Your task to perform on an android device: choose inbox layout in the gmail app Image 0: 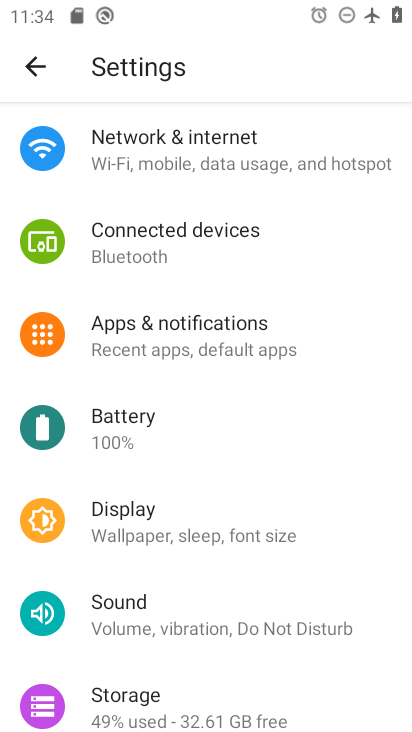
Step 0: press home button
Your task to perform on an android device: choose inbox layout in the gmail app Image 1: 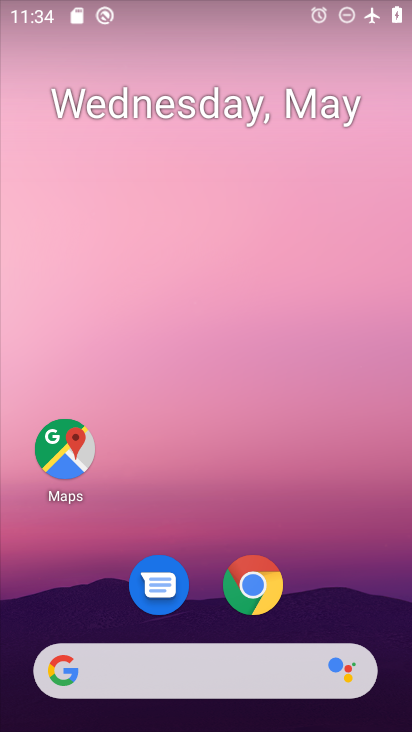
Step 1: drag from (260, 444) to (229, 72)
Your task to perform on an android device: choose inbox layout in the gmail app Image 2: 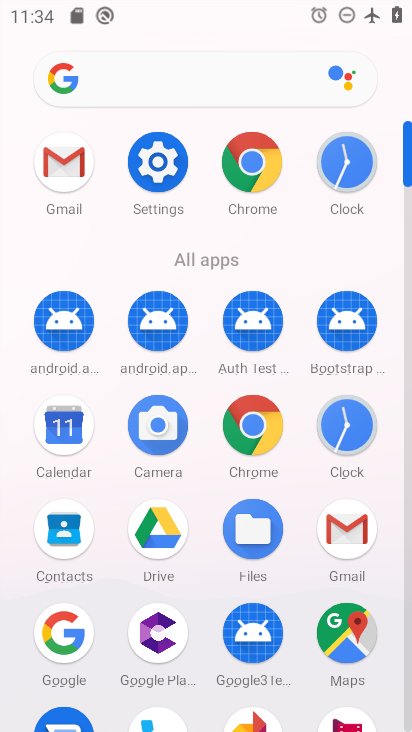
Step 2: click (66, 162)
Your task to perform on an android device: choose inbox layout in the gmail app Image 3: 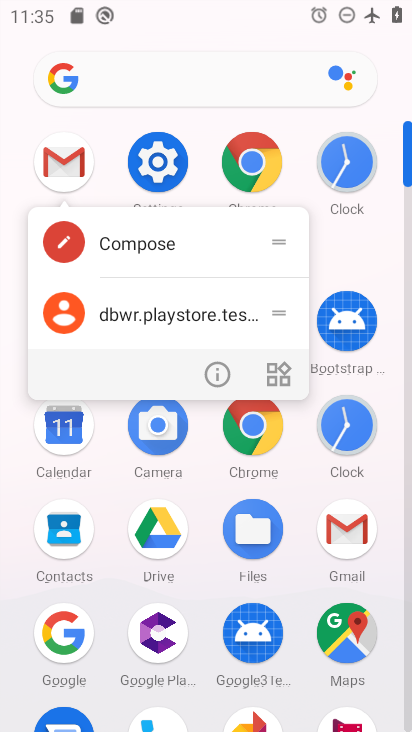
Step 3: click (70, 152)
Your task to perform on an android device: choose inbox layout in the gmail app Image 4: 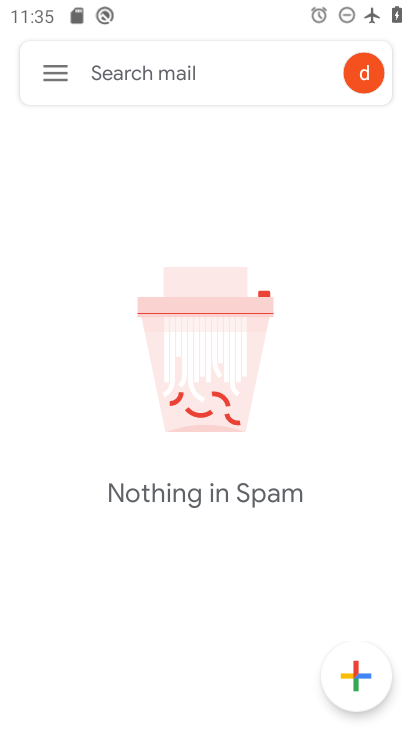
Step 4: click (60, 72)
Your task to perform on an android device: choose inbox layout in the gmail app Image 5: 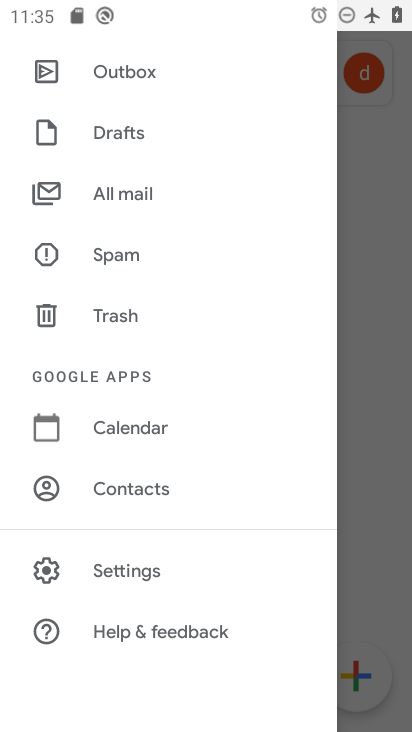
Step 5: click (140, 557)
Your task to perform on an android device: choose inbox layout in the gmail app Image 6: 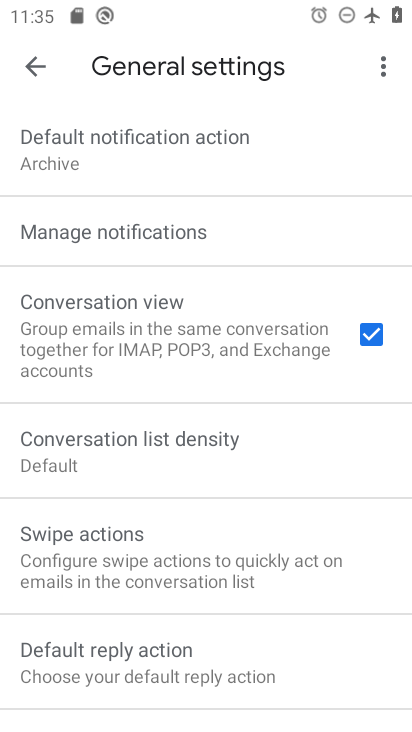
Step 6: drag from (173, 480) to (207, 87)
Your task to perform on an android device: choose inbox layout in the gmail app Image 7: 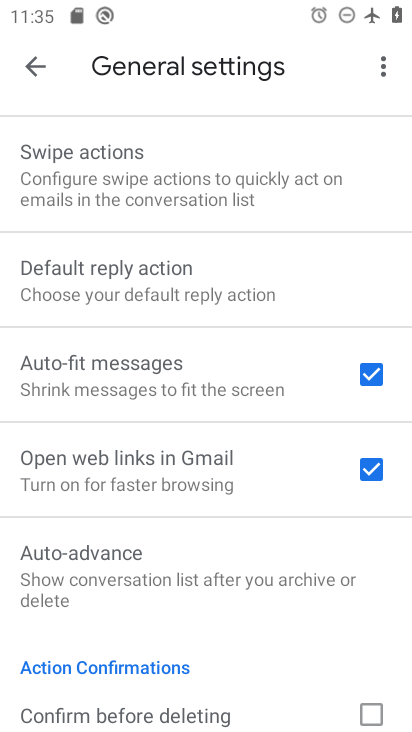
Step 7: click (31, 62)
Your task to perform on an android device: choose inbox layout in the gmail app Image 8: 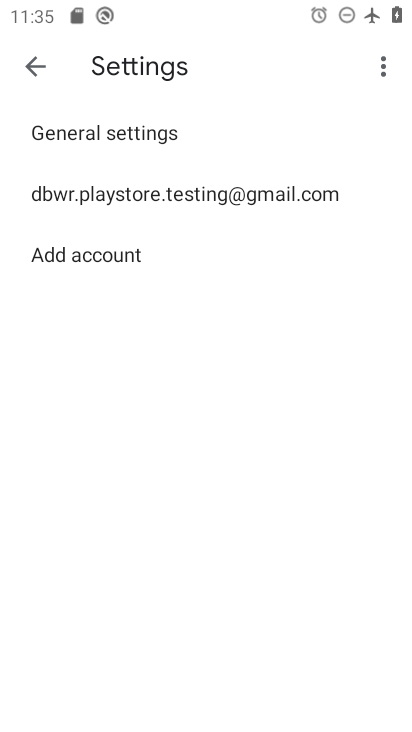
Step 8: click (118, 186)
Your task to perform on an android device: choose inbox layout in the gmail app Image 9: 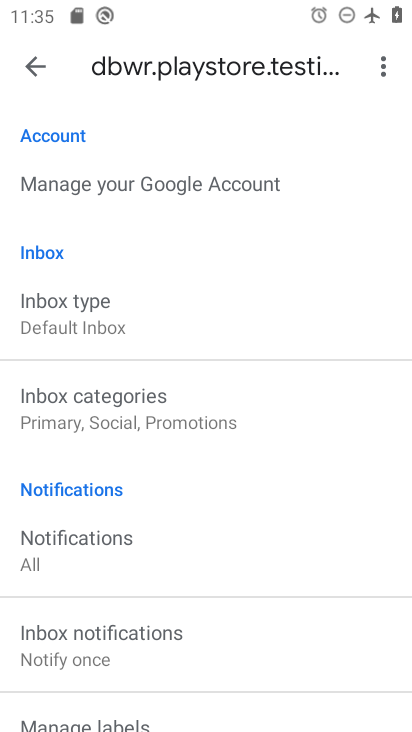
Step 9: click (113, 320)
Your task to perform on an android device: choose inbox layout in the gmail app Image 10: 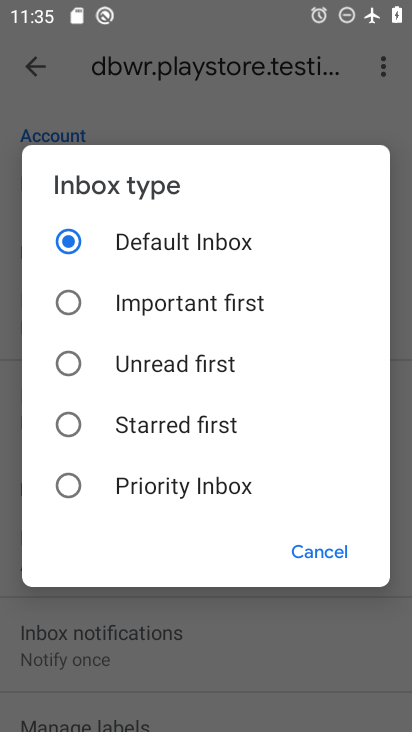
Step 10: click (67, 299)
Your task to perform on an android device: choose inbox layout in the gmail app Image 11: 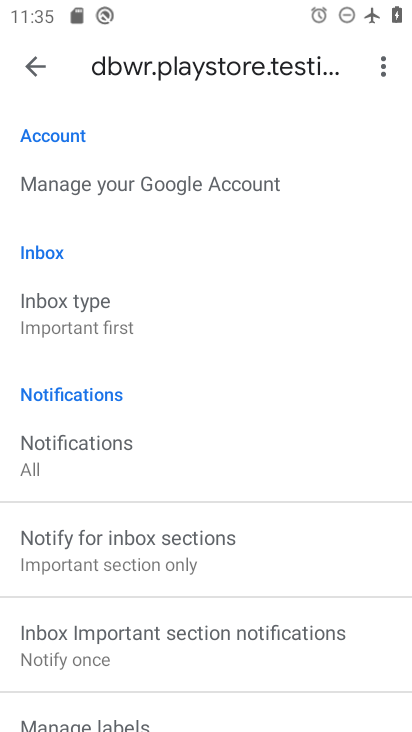
Step 11: task complete